Your task to perform on an android device: Add razer deathadder to the cart on walmart.com, then select checkout. Image 0: 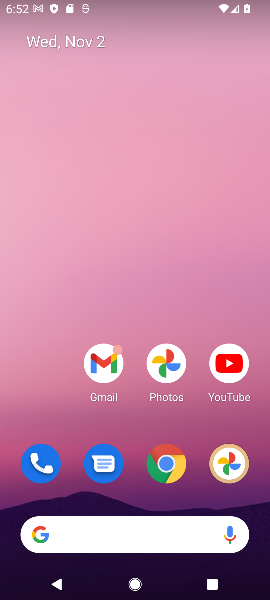
Step 0: click (169, 463)
Your task to perform on an android device: Add razer deathadder to the cart on walmart.com, then select checkout. Image 1: 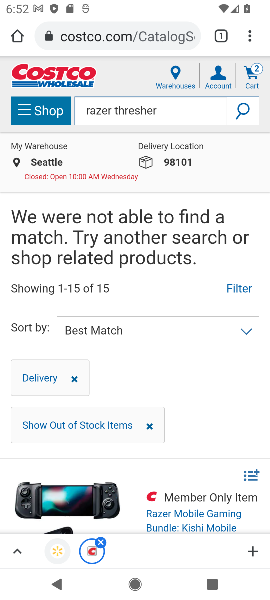
Step 1: click (125, 39)
Your task to perform on an android device: Add razer deathadder to the cart on walmart.com, then select checkout. Image 2: 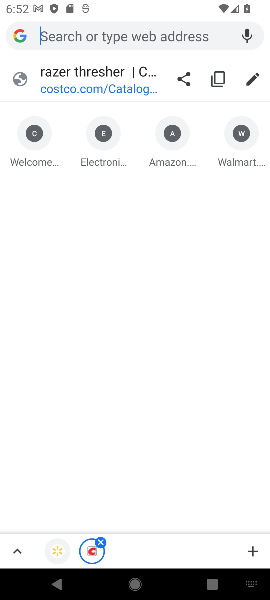
Step 2: type "walmart.com"
Your task to perform on an android device: Add razer deathadder to the cart on walmart.com, then select checkout. Image 3: 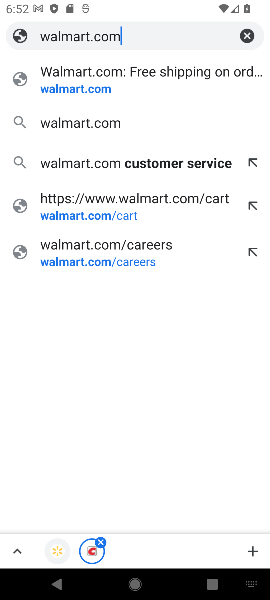
Step 3: click (81, 90)
Your task to perform on an android device: Add razer deathadder to the cart on walmart.com, then select checkout. Image 4: 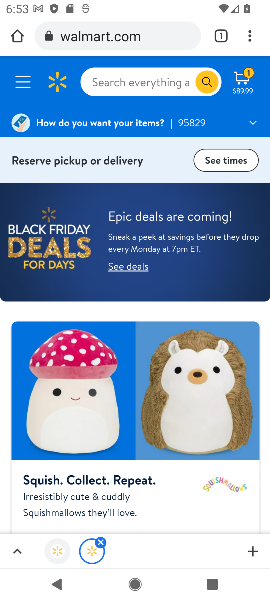
Step 4: click (121, 82)
Your task to perform on an android device: Add razer deathadder to the cart on walmart.com, then select checkout. Image 5: 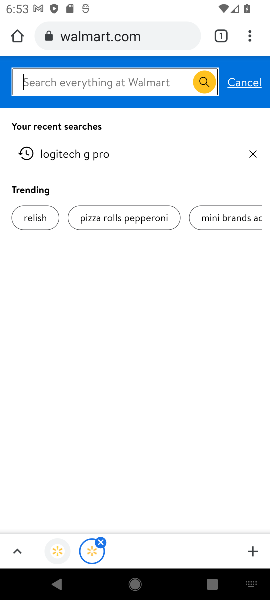
Step 5: type "razer deathadder"
Your task to perform on an android device: Add razer deathadder to the cart on walmart.com, then select checkout. Image 6: 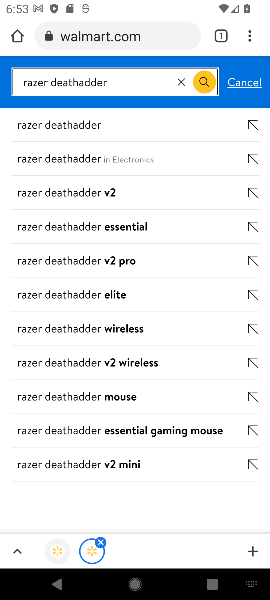
Step 6: click (89, 130)
Your task to perform on an android device: Add razer deathadder to the cart on walmart.com, then select checkout. Image 7: 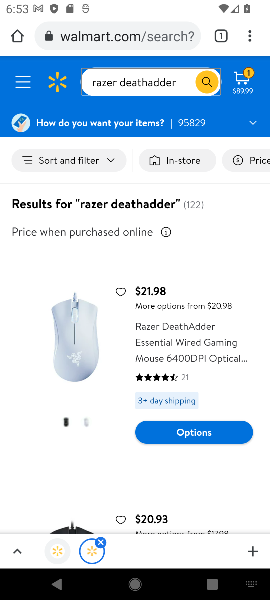
Step 7: click (86, 337)
Your task to perform on an android device: Add razer deathadder to the cart on walmart.com, then select checkout. Image 8: 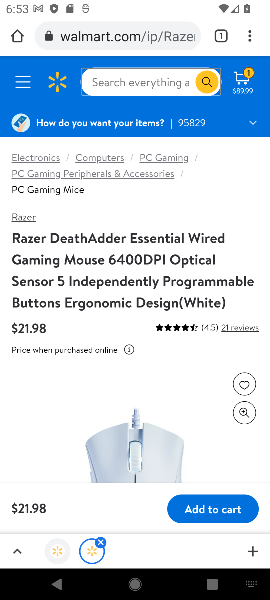
Step 8: drag from (87, 407) to (72, 158)
Your task to perform on an android device: Add razer deathadder to the cart on walmart.com, then select checkout. Image 9: 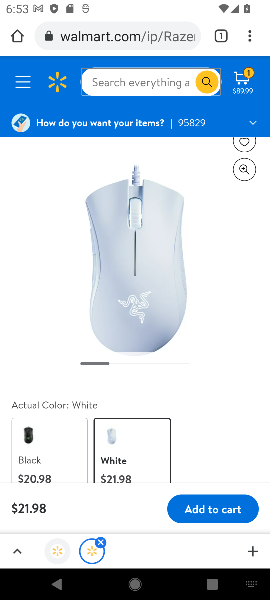
Step 9: click (207, 510)
Your task to perform on an android device: Add razer deathadder to the cart on walmart.com, then select checkout. Image 10: 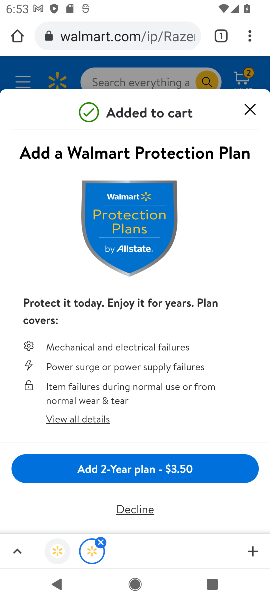
Step 10: click (245, 98)
Your task to perform on an android device: Add razer deathadder to the cart on walmart.com, then select checkout. Image 11: 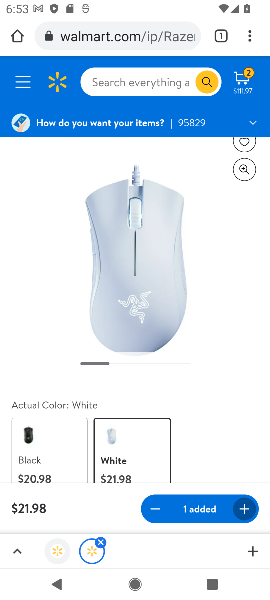
Step 11: click (241, 75)
Your task to perform on an android device: Add razer deathadder to the cart on walmart.com, then select checkout. Image 12: 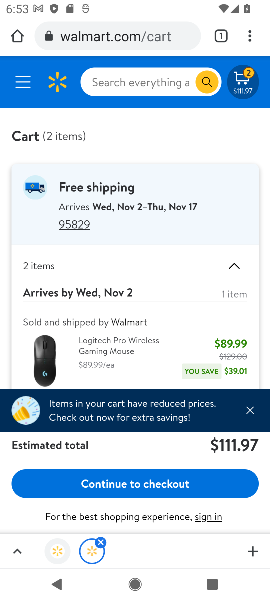
Step 12: click (118, 490)
Your task to perform on an android device: Add razer deathadder to the cart on walmart.com, then select checkout. Image 13: 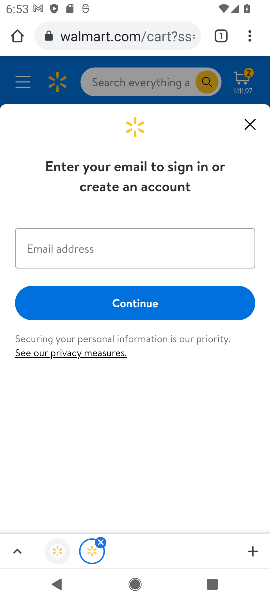
Step 13: task complete